Your task to perform on an android device: allow cookies in the chrome app Image 0: 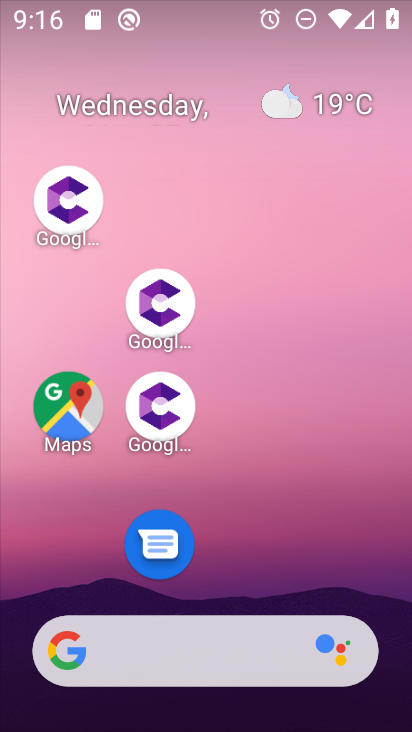
Step 0: drag from (279, 528) to (223, 145)
Your task to perform on an android device: allow cookies in the chrome app Image 1: 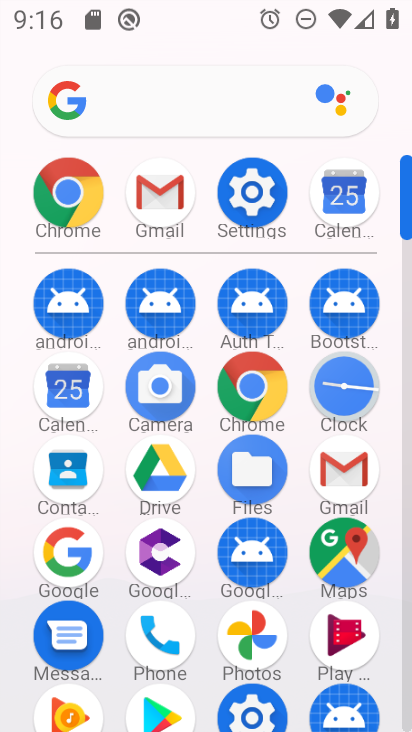
Step 1: click (70, 191)
Your task to perform on an android device: allow cookies in the chrome app Image 2: 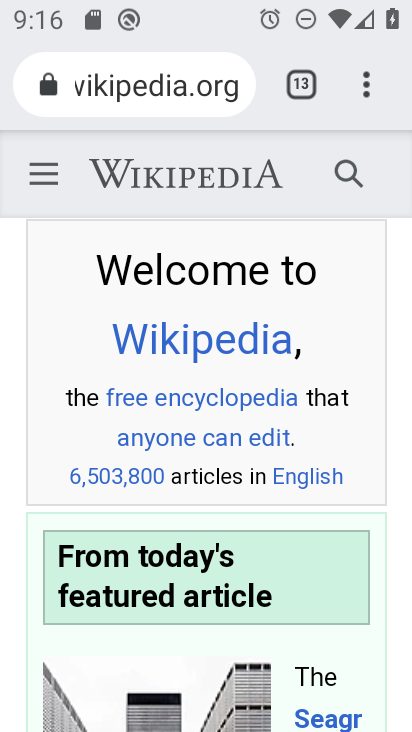
Step 2: click (363, 86)
Your task to perform on an android device: allow cookies in the chrome app Image 3: 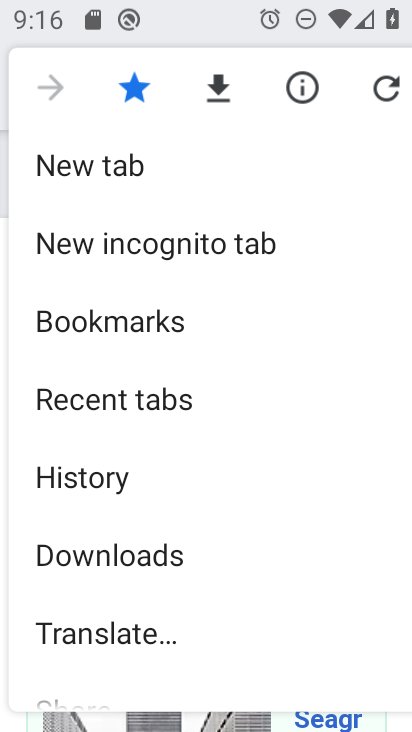
Step 3: drag from (219, 555) to (187, 192)
Your task to perform on an android device: allow cookies in the chrome app Image 4: 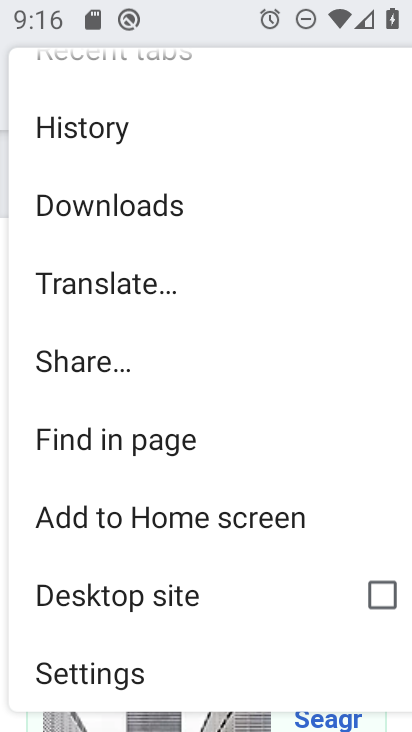
Step 4: click (85, 669)
Your task to perform on an android device: allow cookies in the chrome app Image 5: 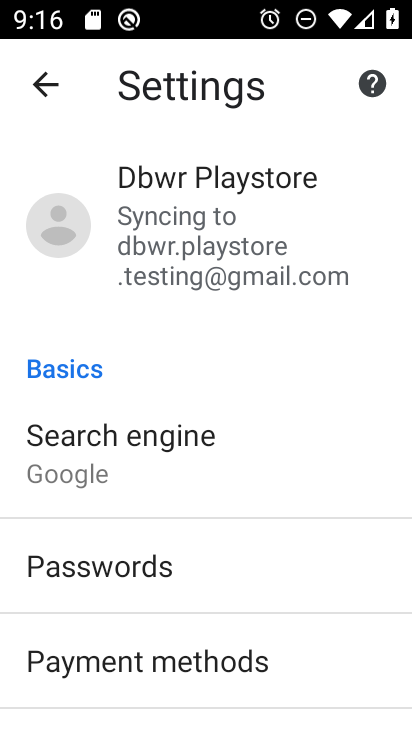
Step 5: drag from (216, 575) to (204, 254)
Your task to perform on an android device: allow cookies in the chrome app Image 6: 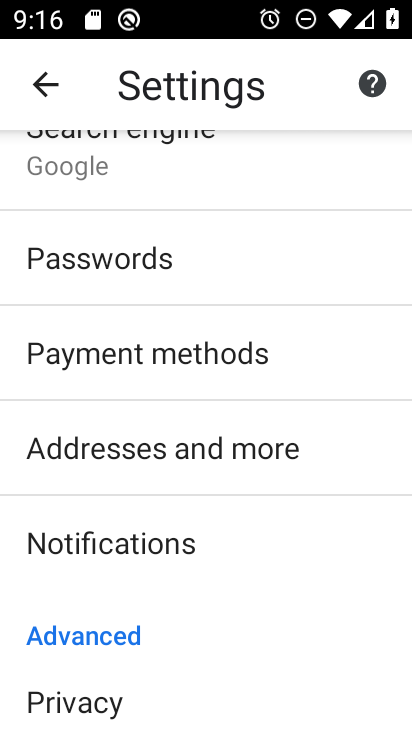
Step 6: drag from (179, 610) to (178, 321)
Your task to perform on an android device: allow cookies in the chrome app Image 7: 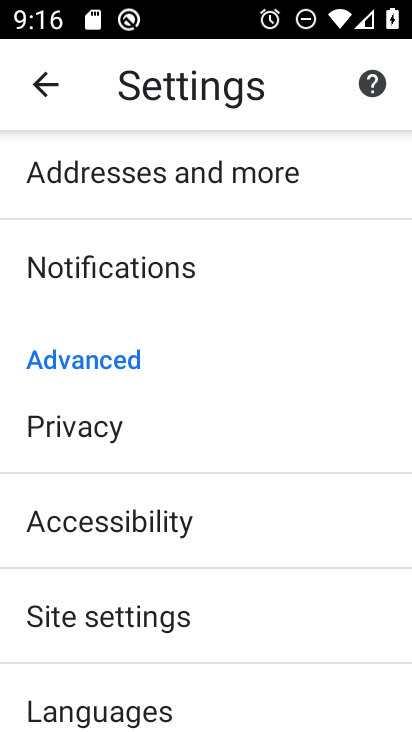
Step 7: click (102, 623)
Your task to perform on an android device: allow cookies in the chrome app Image 8: 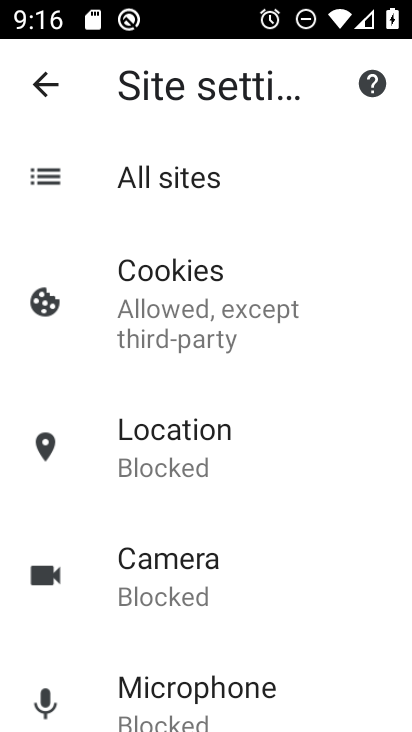
Step 8: click (162, 266)
Your task to perform on an android device: allow cookies in the chrome app Image 9: 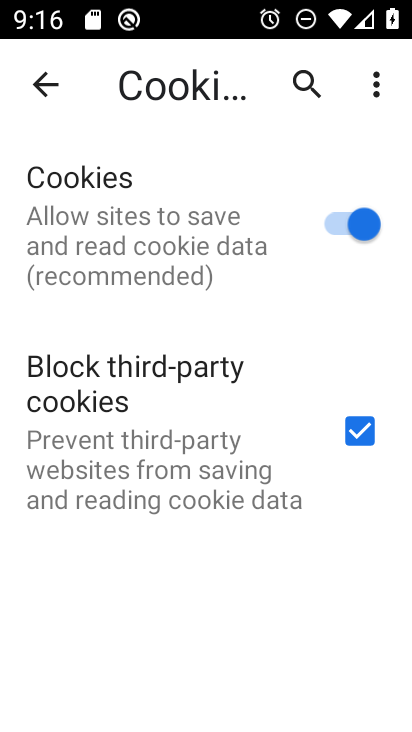
Step 9: task complete